Your task to perform on an android device: Check the weather Image 0: 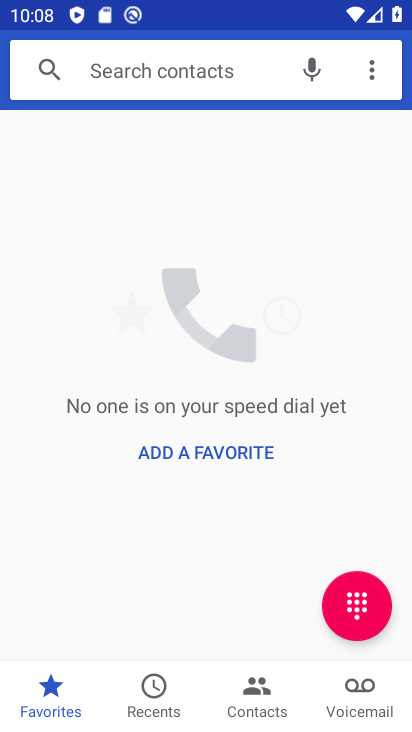
Step 0: press back button
Your task to perform on an android device: Check the weather Image 1: 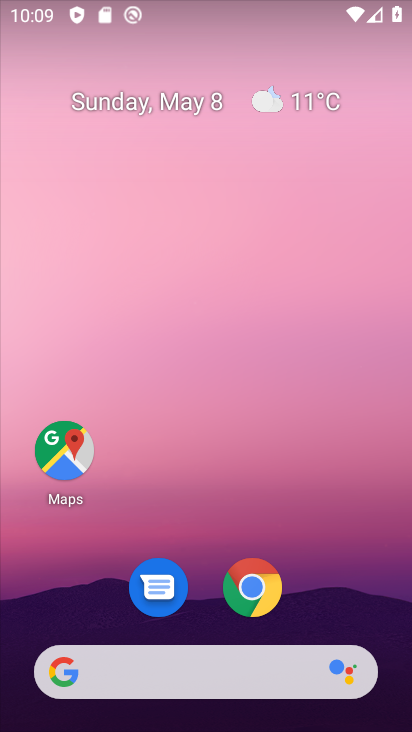
Step 1: click (327, 109)
Your task to perform on an android device: Check the weather Image 2: 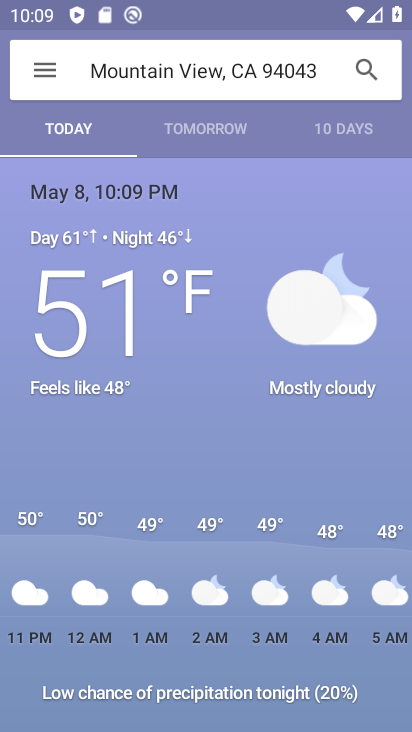
Step 2: task complete